Your task to perform on an android device: Go to calendar. Show me events next week Image 0: 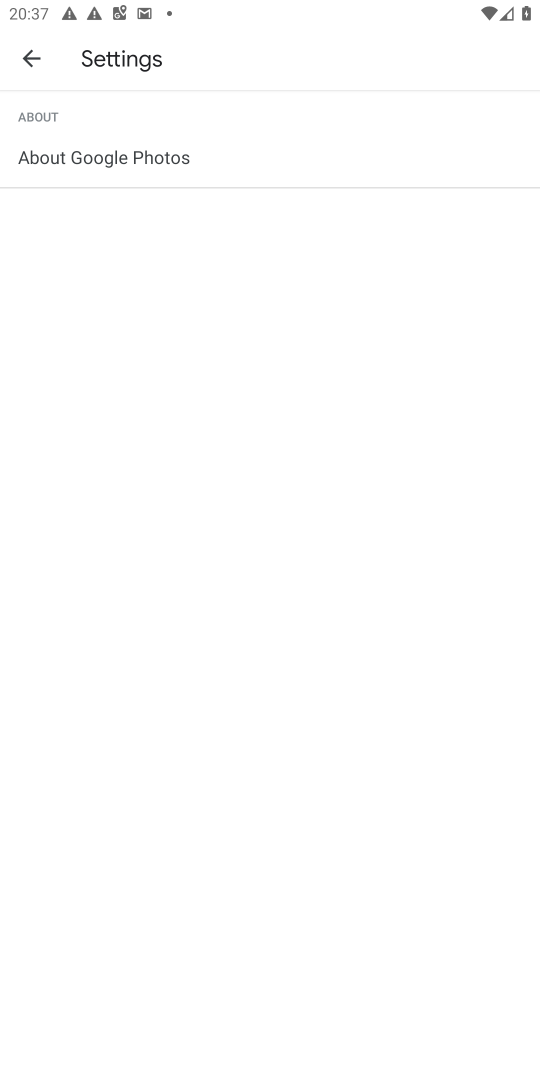
Step 0: press home button
Your task to perform on an android device: Go to calendar. Show me events next week Image 1: 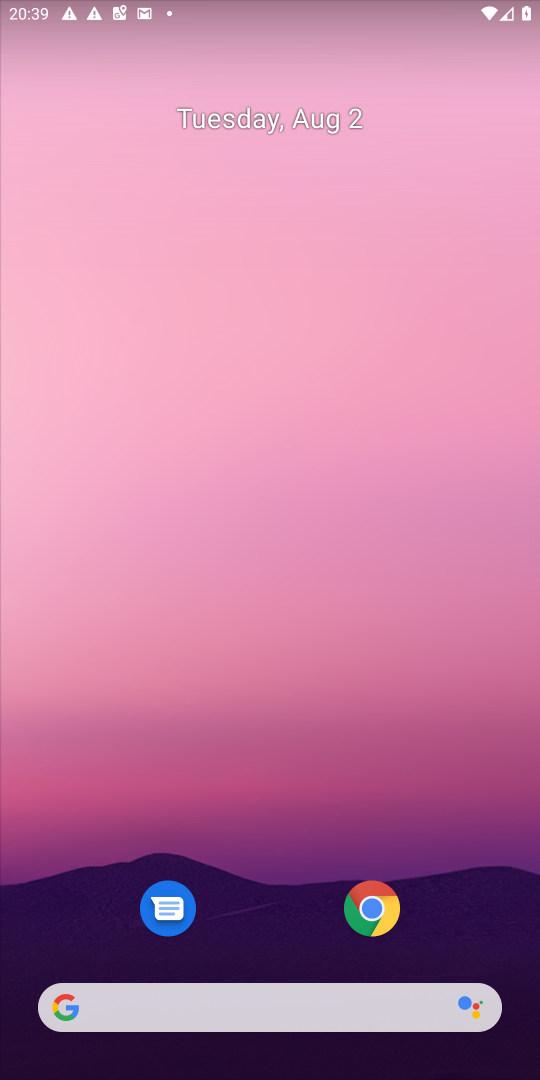
Step 1: drag from (370, 722) to (382, 433)
Your task to perform on an android device: Go to calendar. Show me events next week Image 2: 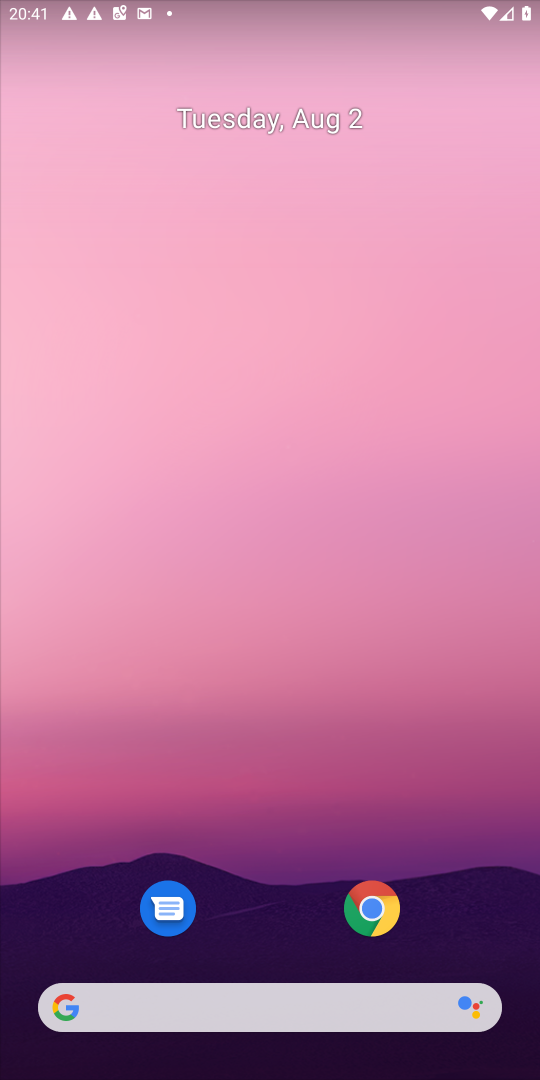
Step 2: drag from (311, 666) to (391, 10)
Your task to perform on an android device: Go to calendar. Show me events next week Image 3: 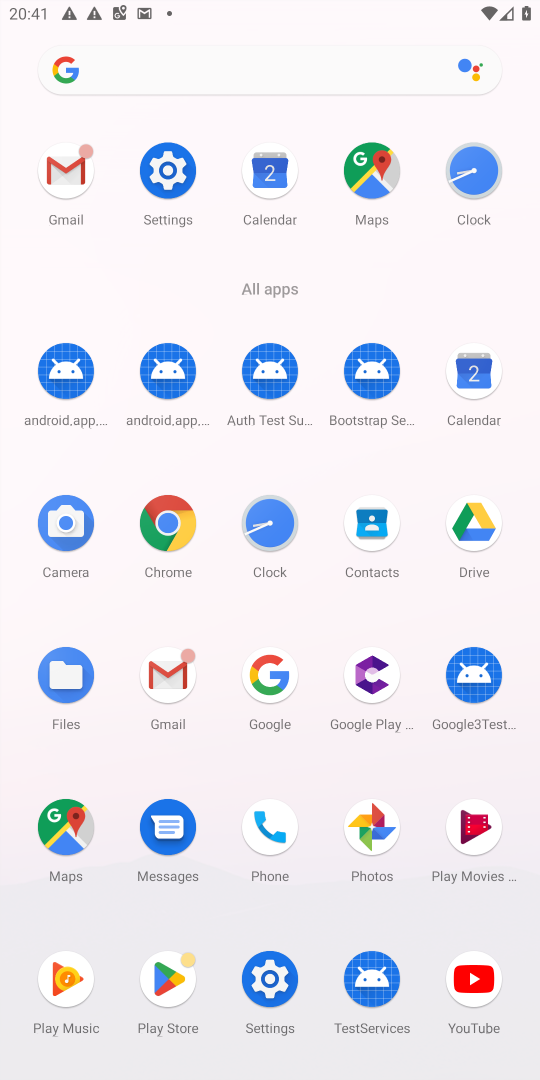
Step 3: click (473, 376)
Your task to perform on an android device: Go to calendar. Show me events next week Image 4: 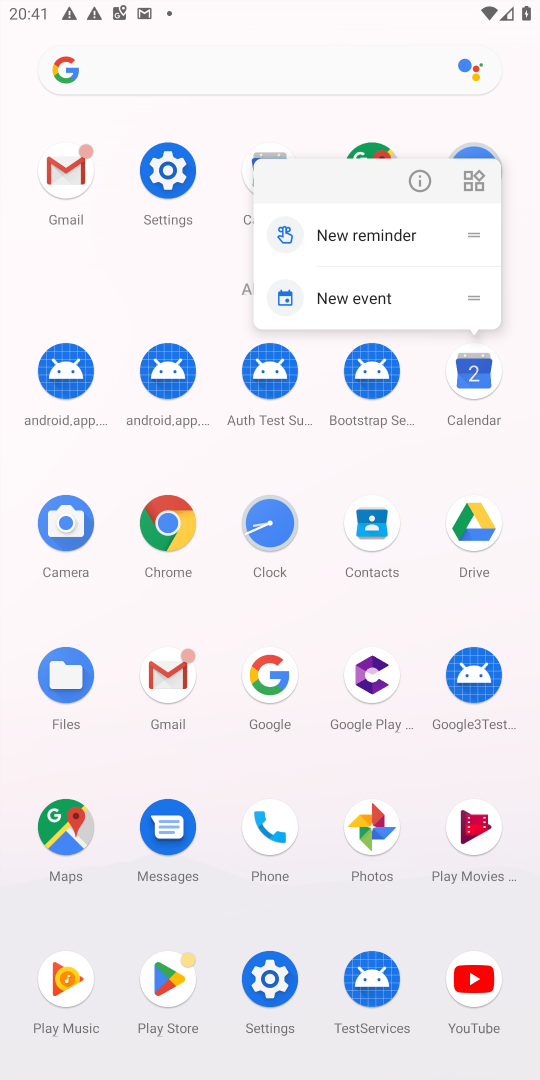
Step 4: click (473, 376)
Your task to perform on an android device: Go to calendar. Show me events next week Image 5: 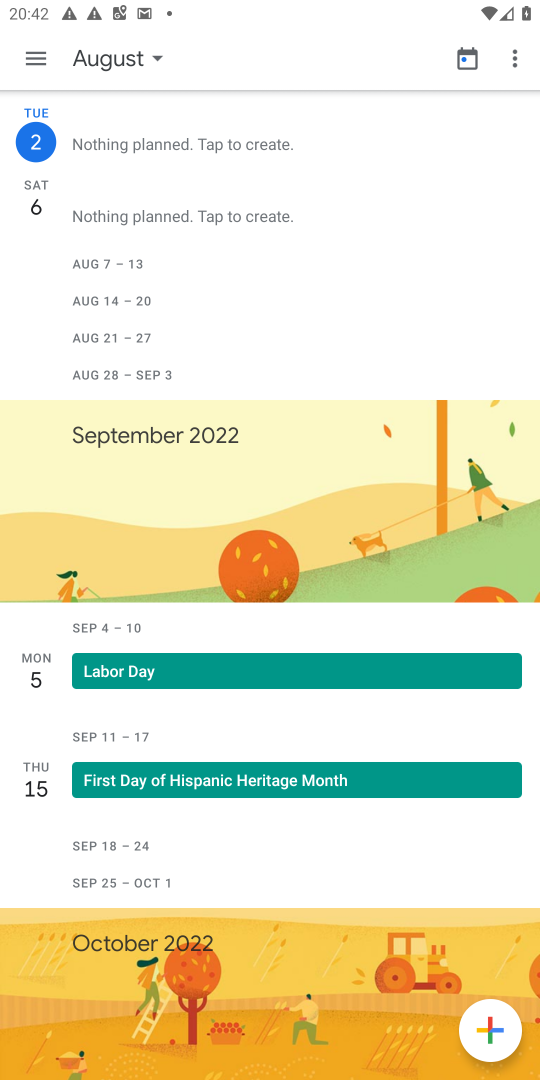
Step 5: task complete